Your task to perform on an android device: all mails in gmail Image 0: 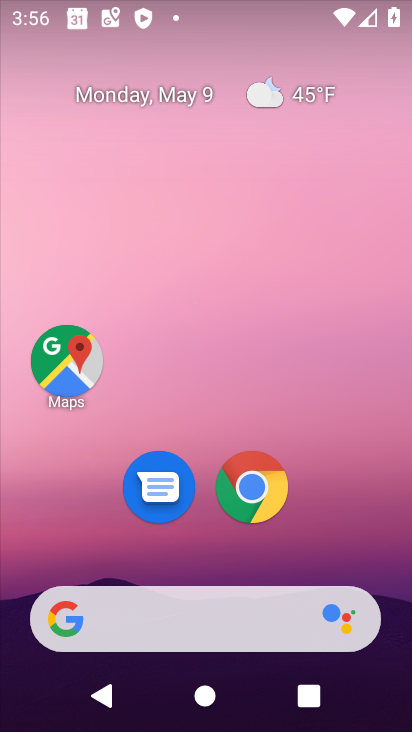
Step 0: drag from (189, 592) to (169, 240)
Your task to perform on an android device: all mails in gmail Image 1: 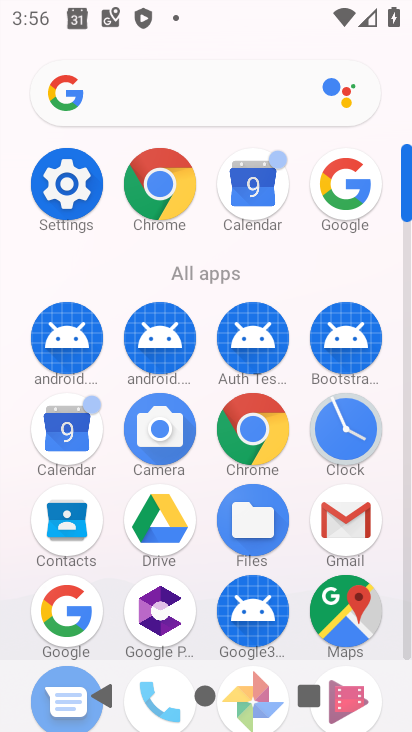
Step 1: click (322, 527)
Your task to perform on an android device: all mails in gmail Image 2: 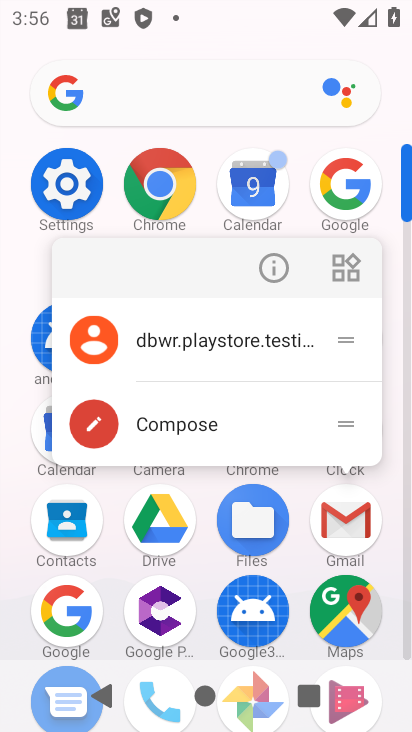
Step 2: click (340, 525)
Your task to perform on an android device: all mails in gmail Image 3: 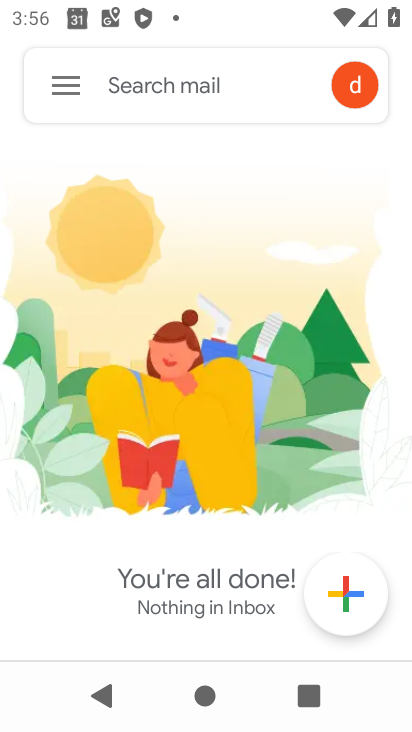
Step 3: click (63, 96)
Your task to perform on an android device: all mails in gmail Image 4: 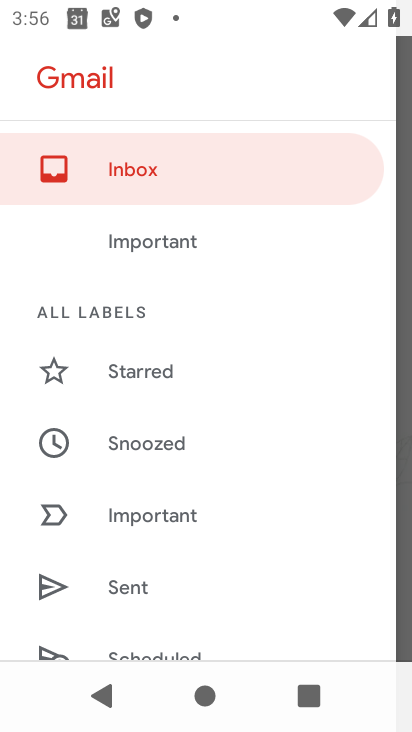
Step 4: drag from (148, 610) to (117, 318)
Your task to perform on an android device: all mails in gmail Image 5: 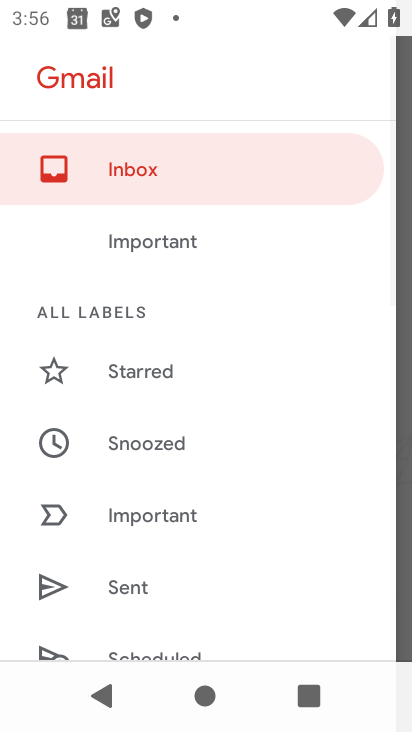
Step 5: drag from (110, 644) to (89, 348)
Your task to perform on an android device: all mails in gmail Image 6: 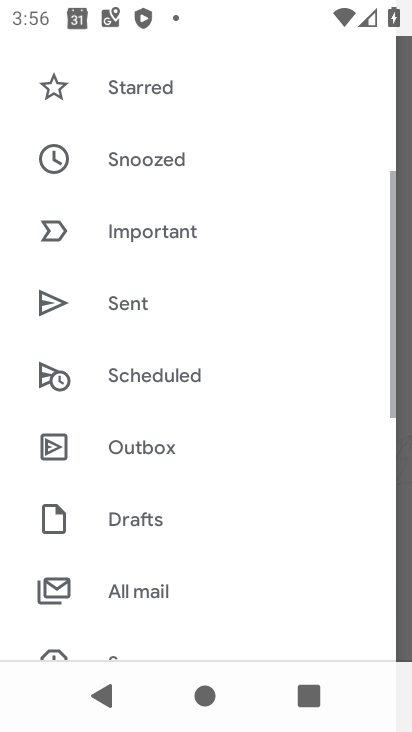
Step 6: click (108, 598)
Your task to perform on an android device: all mails in gmail Image 7: 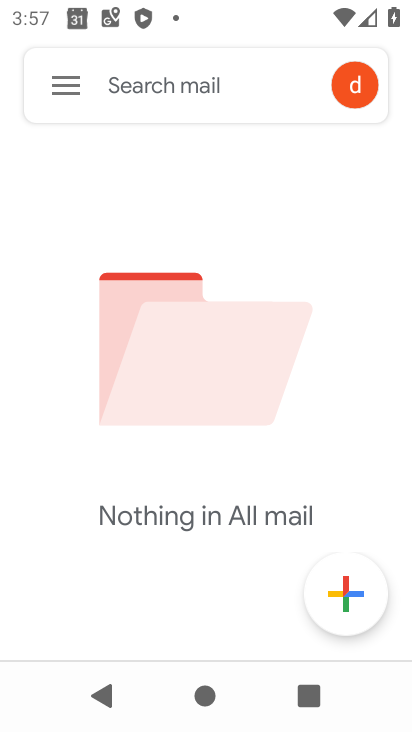
Step 7: task complete